Your task to perform on an android device: Go to battery settings Image 0: 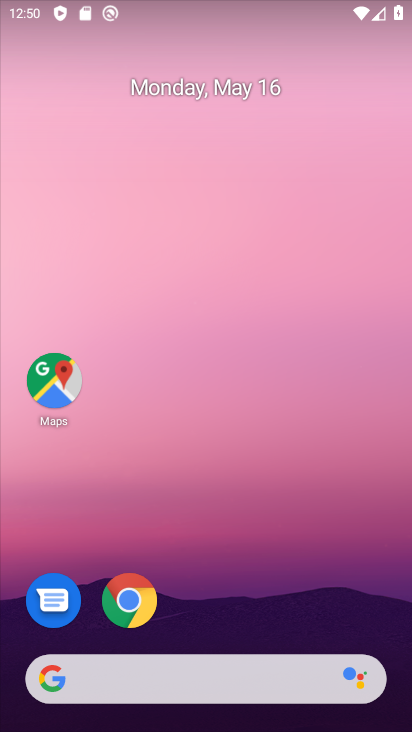
Step 0: drag from (356, 547) to (356, 230)
Your task to perform on an android device: Go to battery settings Image 1: 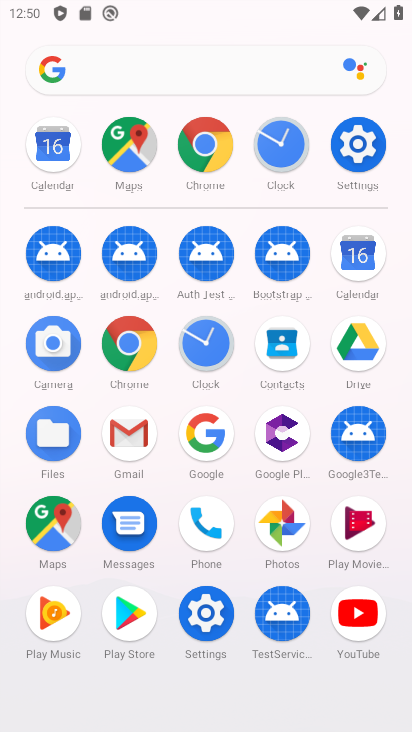
Step 1: click (358, 166)
Your task to perform on an android device: Go to battery settings Image 2: 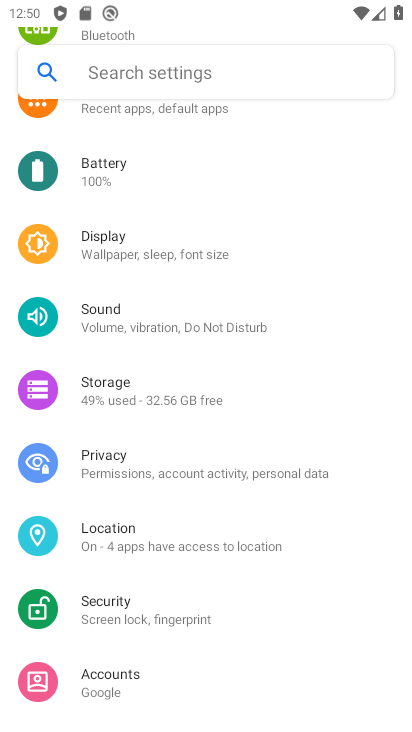
Step 2: drag from (369, 651) to (364, 427)
Your task to perform on an android device: Go to battery settings Image 3: 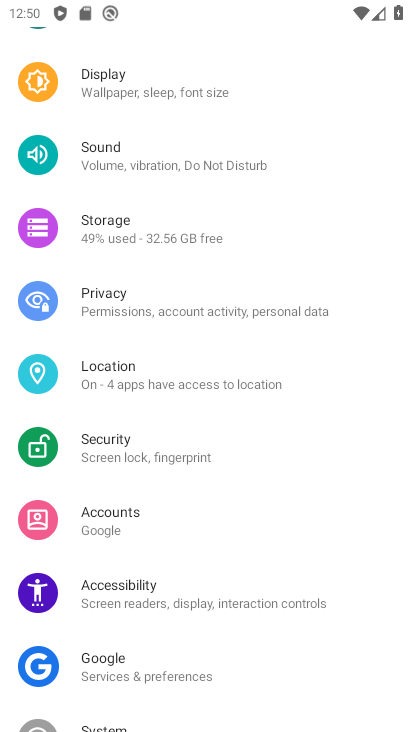
Step 3: drag from (352, 240) to (352, 362)
Your task to perform on an android device: Go to battery settings Image 4: 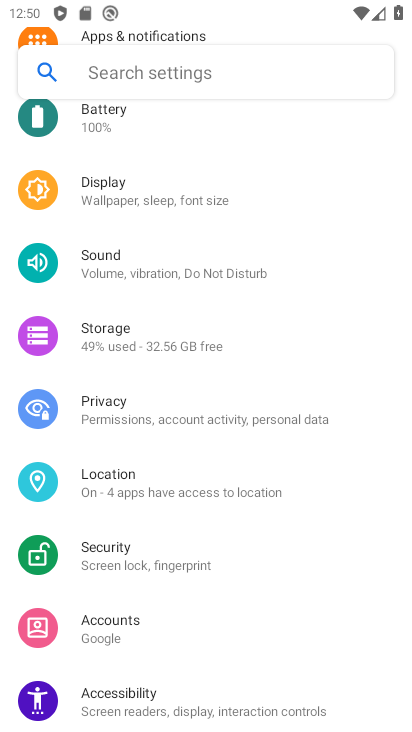
Step 4: drag from (355, 227) to (371, 442)
Your task to perform on an android device: Go to battery settings Image 5: 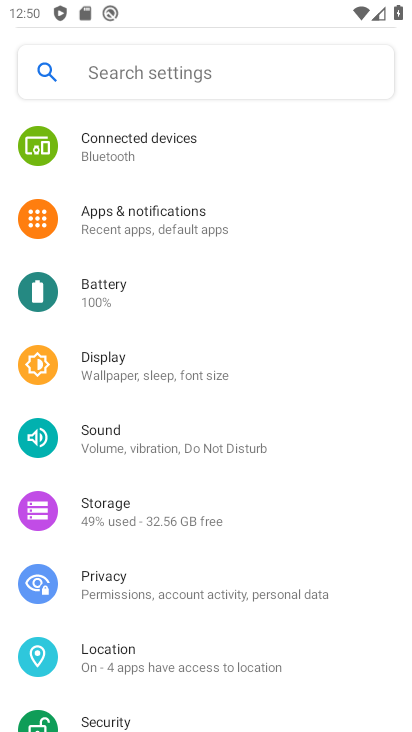
Step 5: click (149, 321)
Your task to perform on an android device: Go to battery settings Image 6: 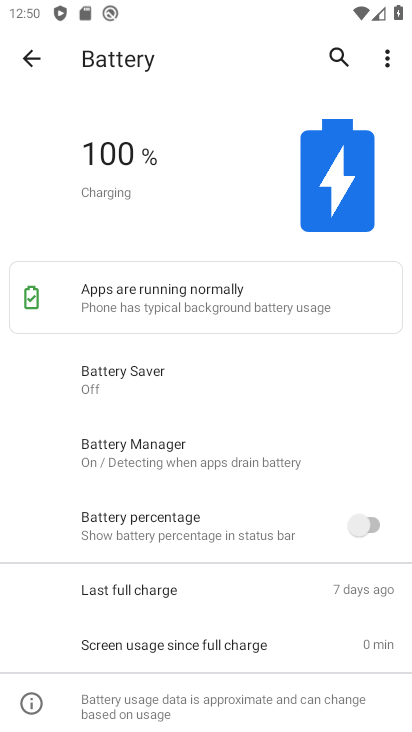
Step 6: task complete